Your task to perform on an android device: Open maps Image 0: 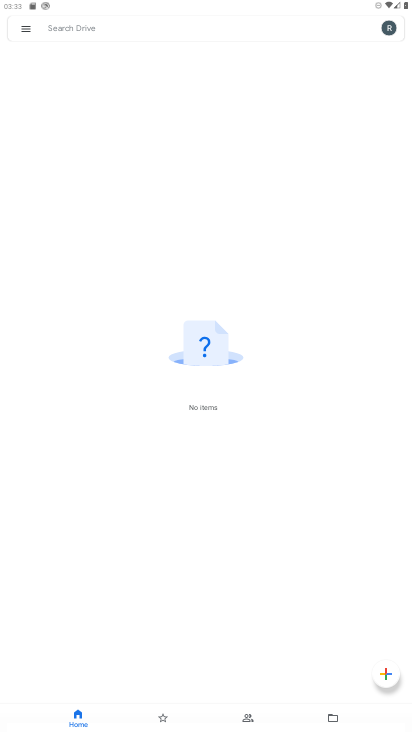
Step 0: press home button
Your task to perform on an android device: Open maps Image 1: 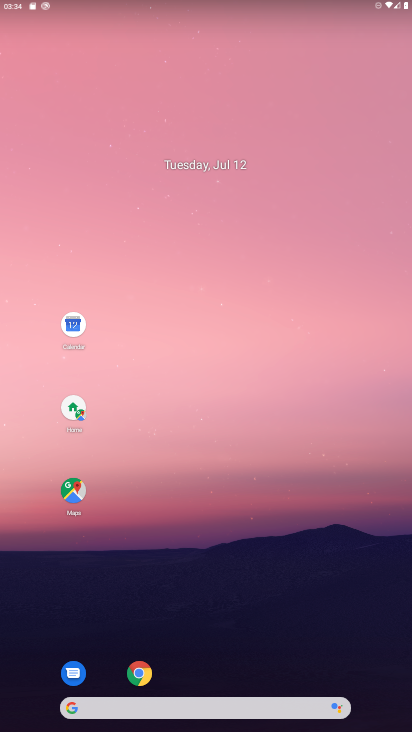
Step 1: drag from (269, 613) to (254, 215)
Your task to perform on an android device: Open maps Image 2: 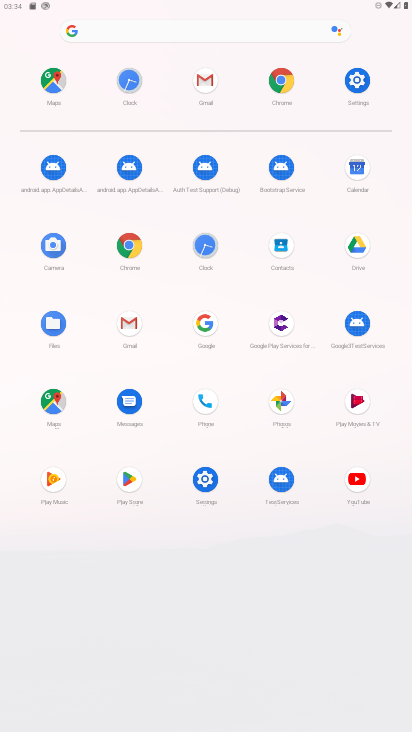
Step 2: click (90, 76)
Your task to perform on an android device: Open maps Image 3: 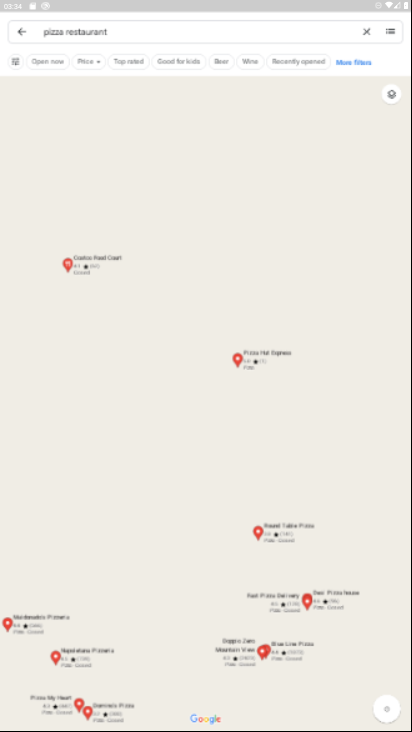
Step 3: click (59, 72)
Your task to perform on an android device: Open maps Image 4: 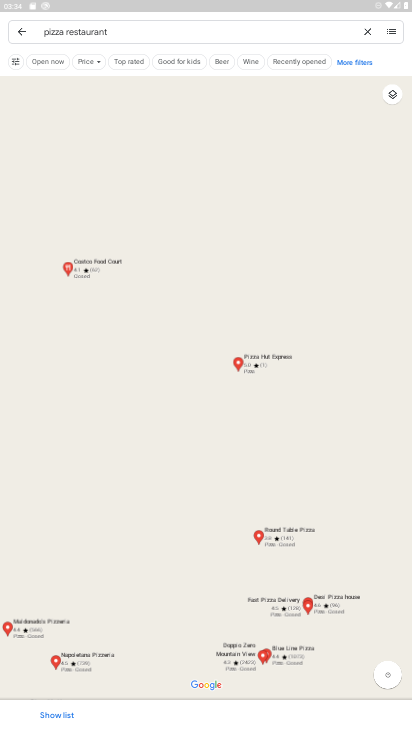
Step 4: click (365, 32)
Your task to perform on an android device: Open maps Image 5: 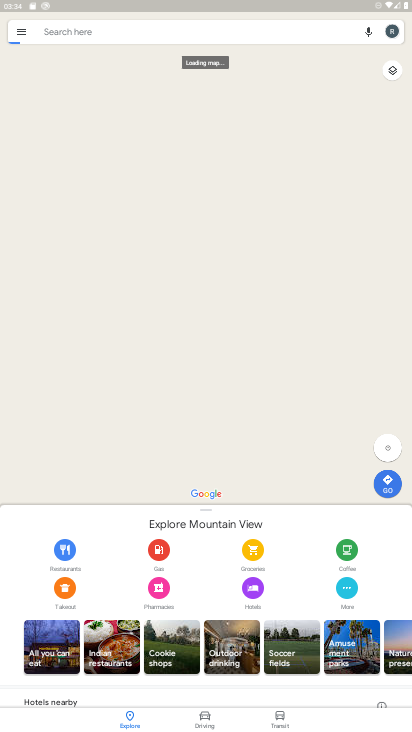
Step 5: task complete